Your task to perform on an android device: Search for pizza restaurants on Maps Image 0: 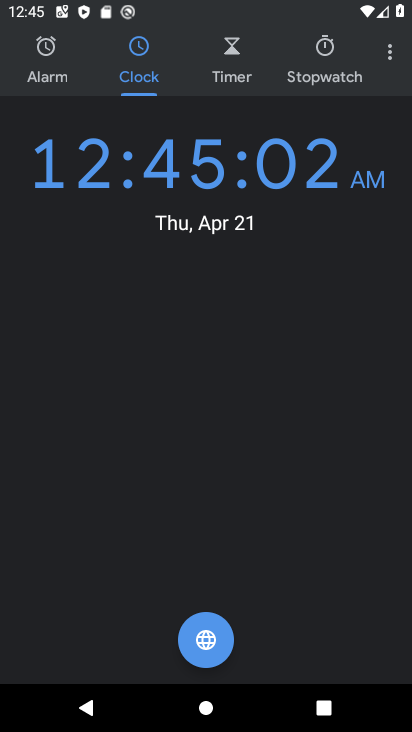
Step 0: press home button
Your task to perform on an android device: Search for pizza restaurants on Maps Image 1: 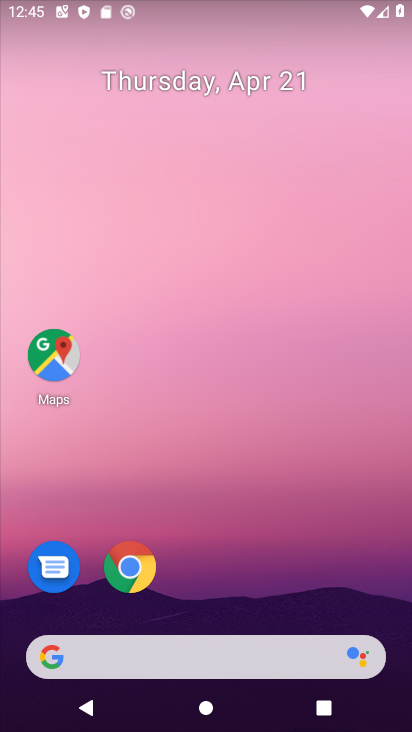
Step 1: click (45, 357)
Your task to perform on an android device: Search for pizza restaurants on Maps Image 2: 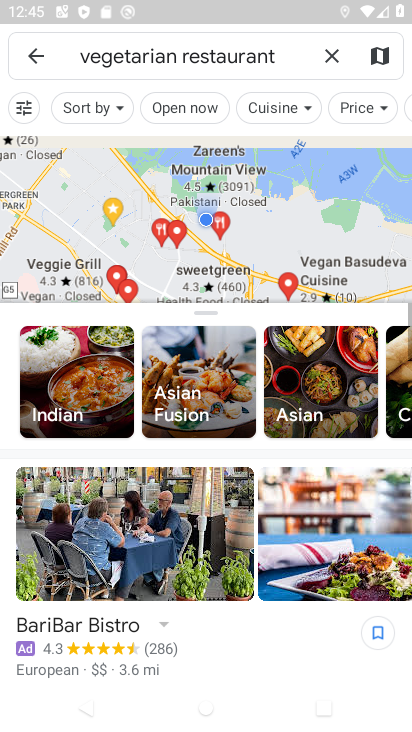
Step 2: click (325, 57)
Your task to perform on an android device: Search for pizza restaurants on Maps Image 3: 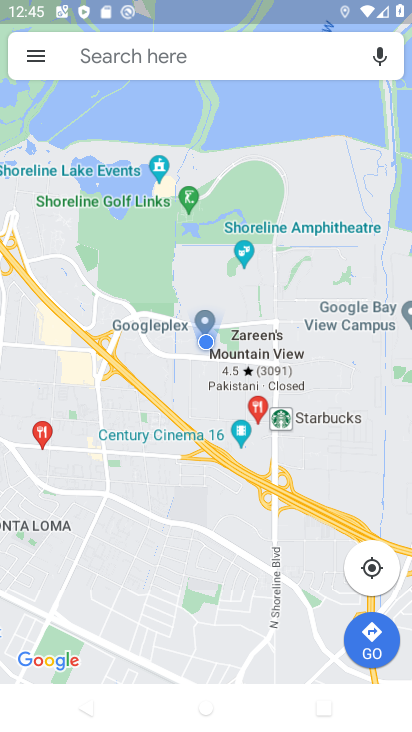
Step 3: click (260, 50)
Your task to perform on an android device: Search for pizza restaurants on Maps Image 4: 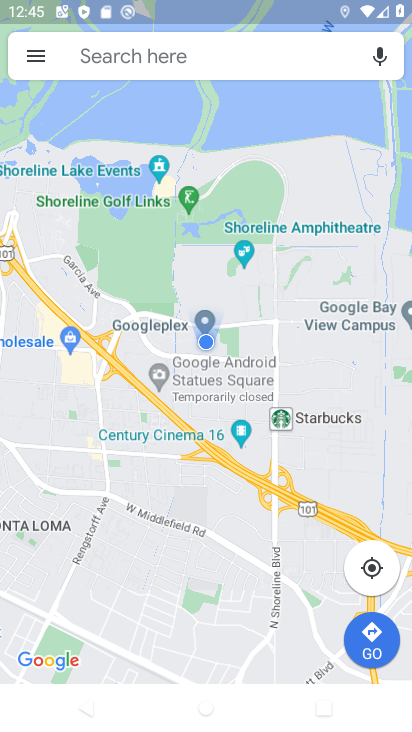
Step 4: click (260, 50)
Your task to perform on an android device: Search for pizza restaurants on Maps Image 5: 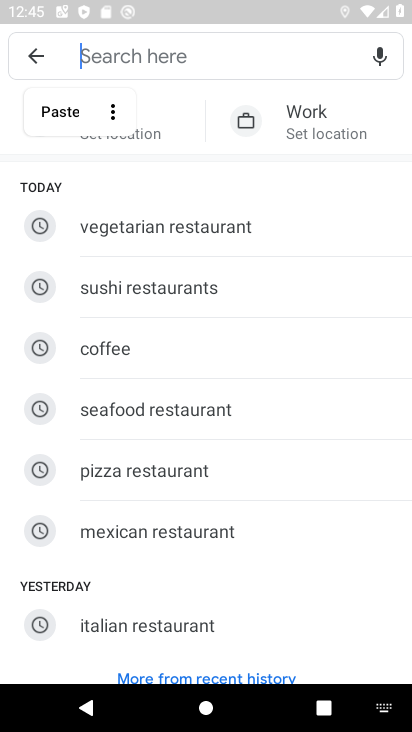
Step 5: type " pizza restaurants "
Your task to perform on an android device: Search for pizza restaurants on Maps Image 6: 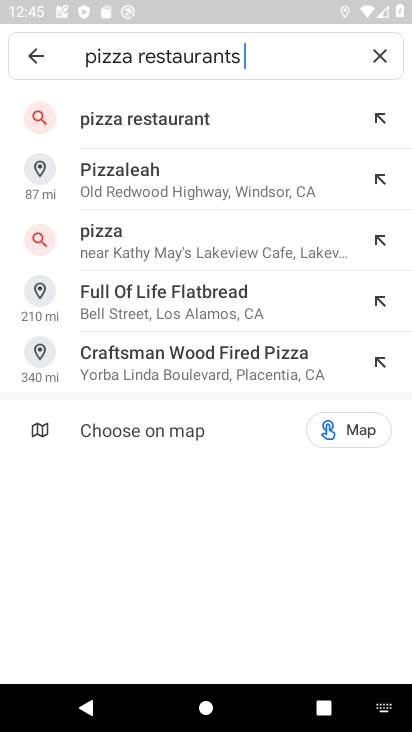
Step 6: click (138, 116)
Your task to perform on an android device: Search for pizza restaurants on Maps Image 7: 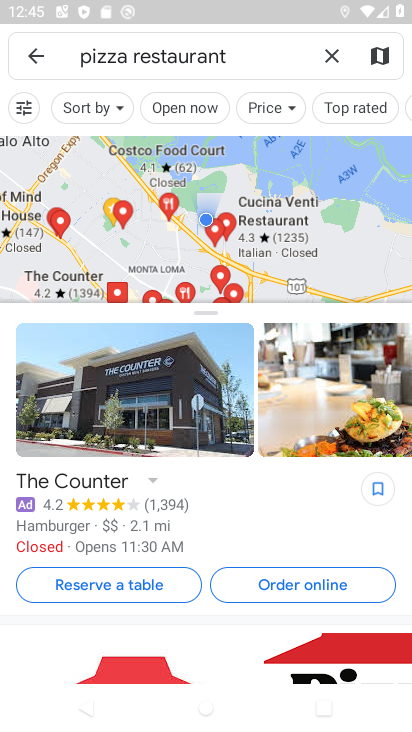
Step 7: task complete